Your task to perform on an android device: Show me recent news Image 0: 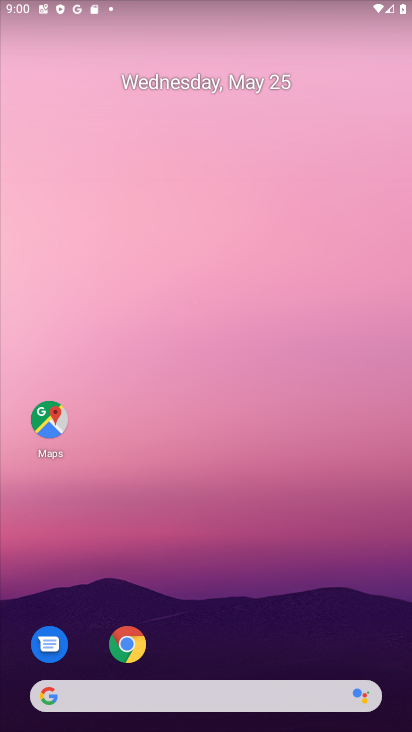
Step 0: press home button
Your task to perform on an android device: Show me recent news Image 1: 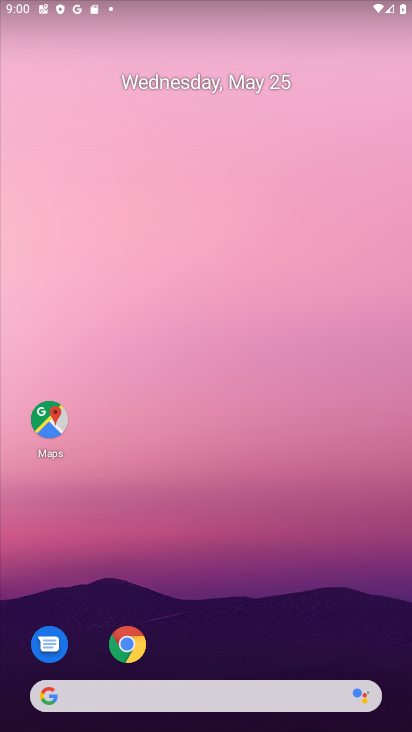
Step 1: task complete